Your task to perform on an android device: check out phone information Image 0: 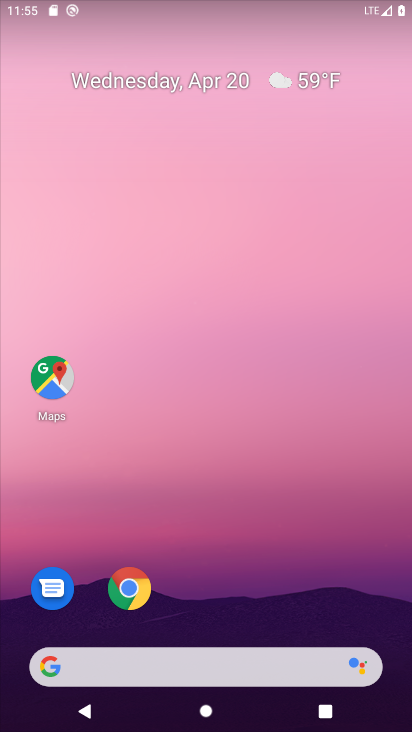
Step 0: drag from (248, 550) to (220, 35)
Your task to perform on an android device: check out phone information Image 1: 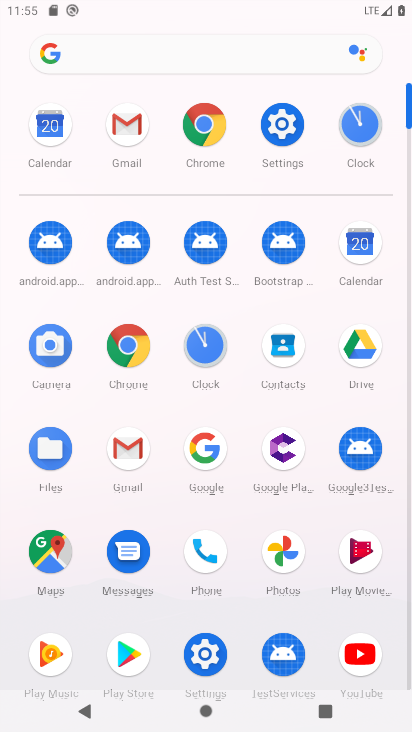
Step 1: click (275, 126)
Your task to perform on an android device: check out phone information Image 2: 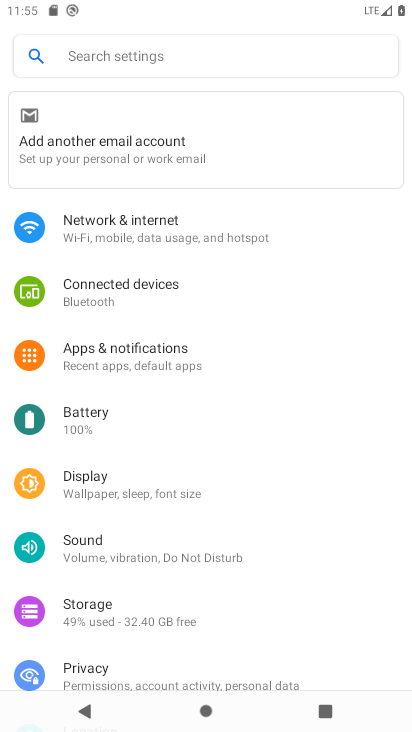
Step 2: drag from (189, 606) to (223, 184)
Your task to perform on an android device: check out phone information Image 3: 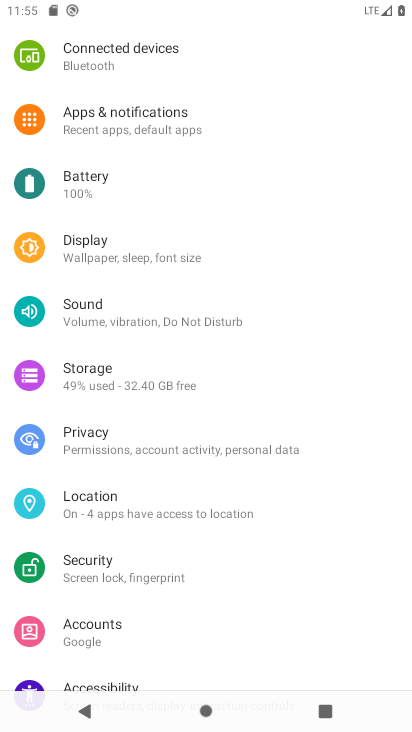
Step 3: drag from (163, 628) to (264, 135)
Your task to perform on an android device: check out phone information Image 4: 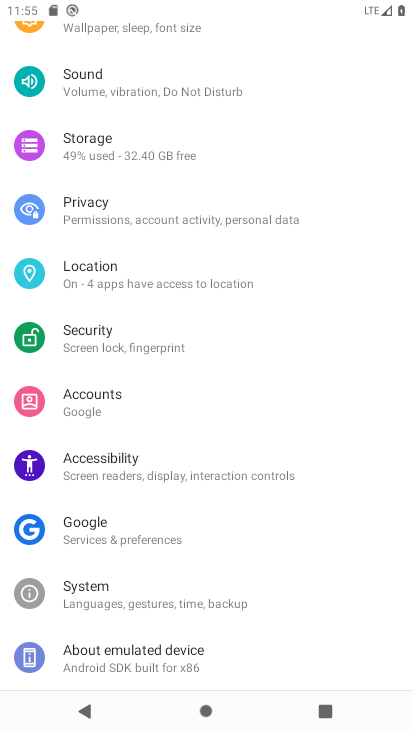
Step 4: click (131, 653)
Your task to perform on an android device: check out phone information Image 5: 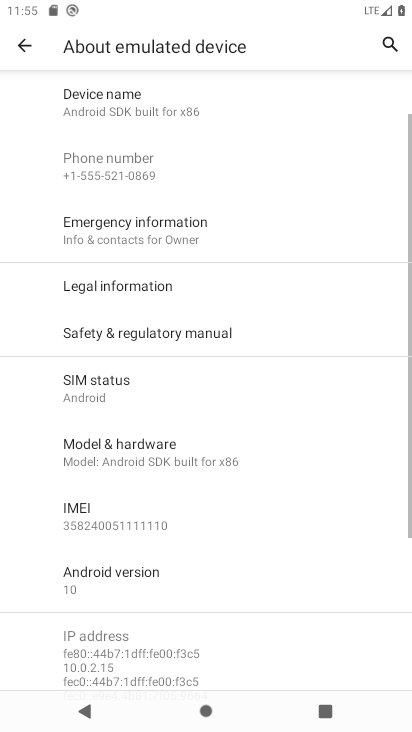
Step 5: task complete